Your task to perform on an android device: Play the last video I watched on Youtube Image 0: 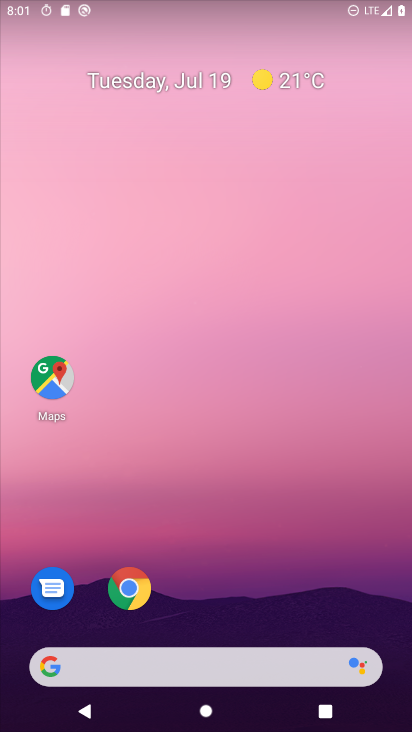
Step 0: drag from (279, 566) to (288, 265)
Your task to perform on an android device: Play the last video I watched on Youtube Image 1: 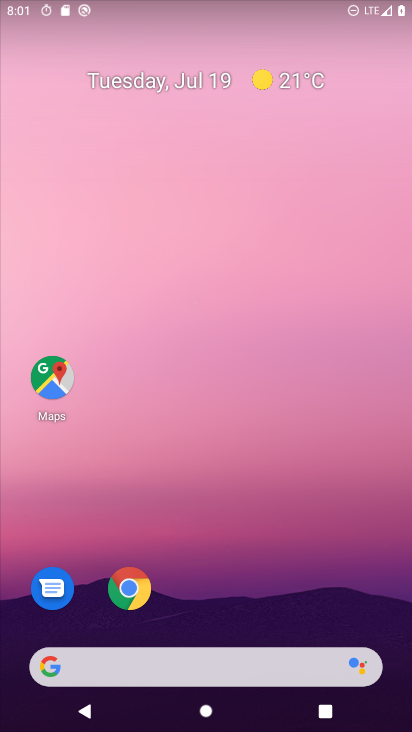
Step 1: drag from (256, 493) to (287, 241)
Your task to perform on an android device: Play the last video I watched on Youtube Image 2: 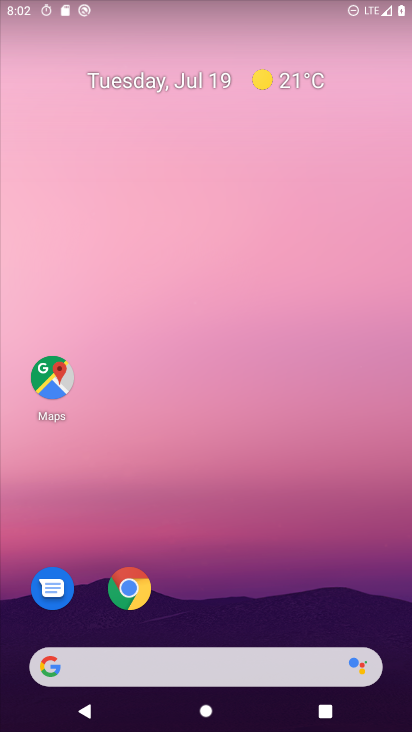
Step 2: drag from (261, 615) to (354, 15)
Your task to perform on an android device: Play the last video I watched on Youtube Image 3: 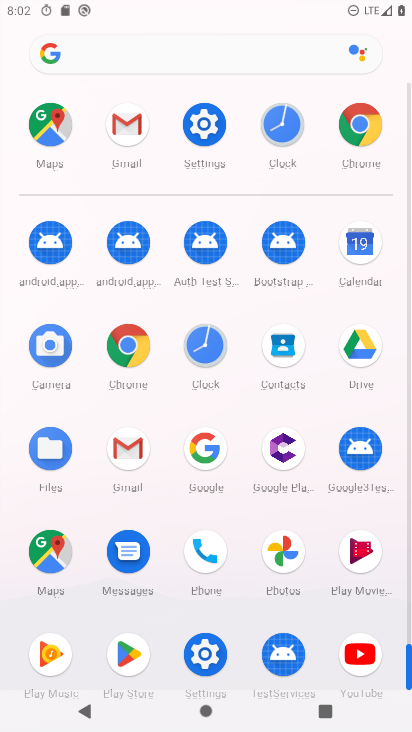
Step 3: click (365, 662)
Your task to perform on an android device: Play the last video I watched on Youtube Image 4: 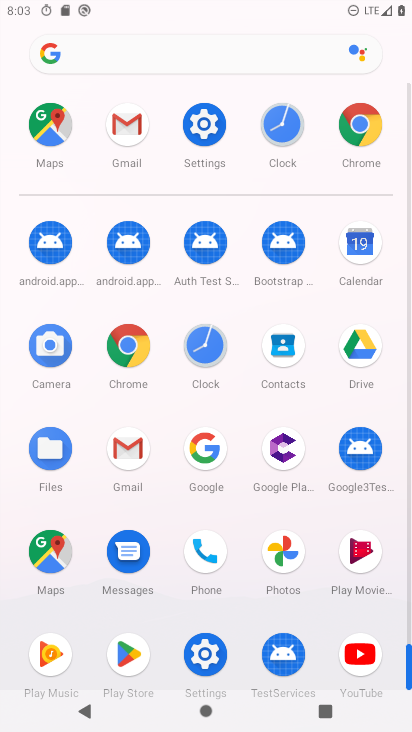
Step 4: click (357, 650)
Your task to perform on an android device: Play the last video I watched on Youtube Image 5: 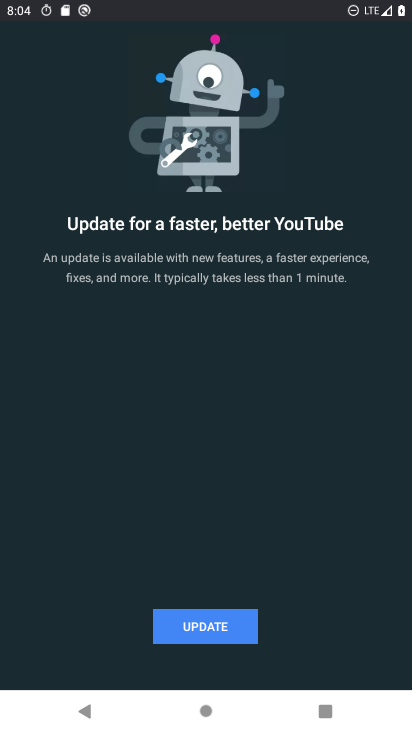
Step 5: task complete